Your task to perform on an android device: turn off improve location accuracy Image 0: 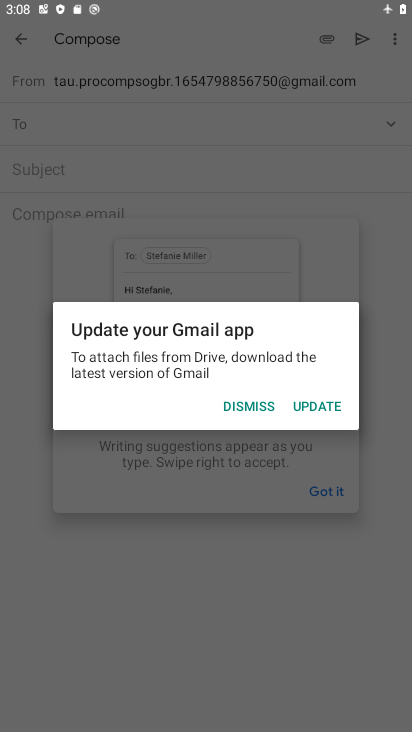
Step 0: press home button
Your task to perform on an android device: turn off improve location accuracy Image 1: 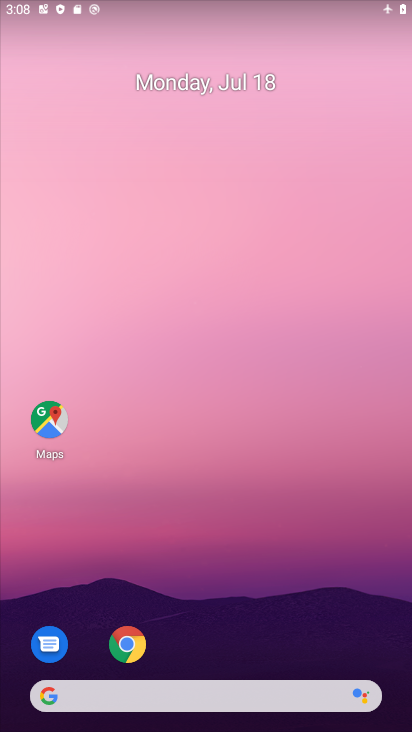
Step 1: drag from (393, 637) to (308, 278)
Your task to perform on an android device: turn off improve location accuracy Image 2: 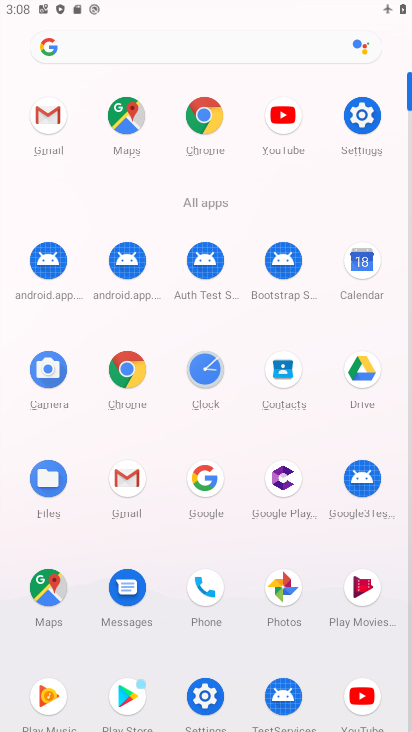
Step 2: click (204, 695)
Your task to perform on an android device: turn off improve location accuracy Image 3: 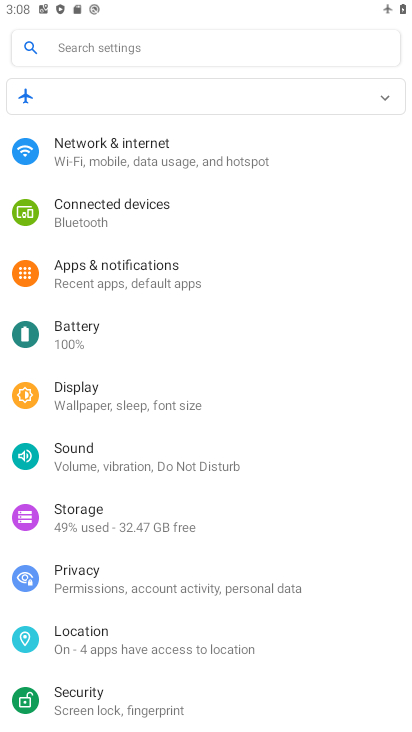
Step 3: click (57, 631)
Your task to perform on an android device: turn off improve location accuracy Image 4: 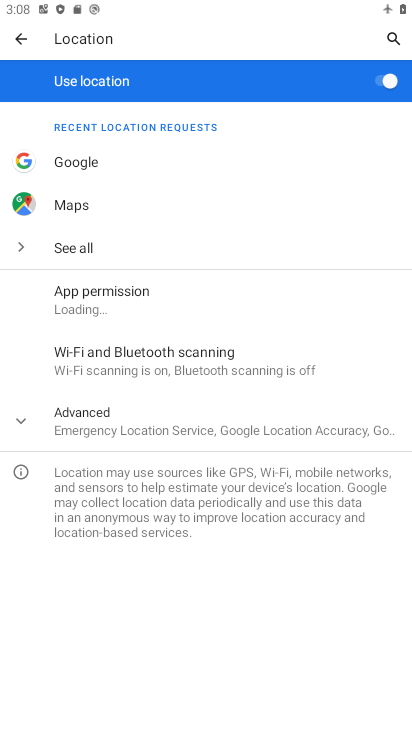
Step 4: click (21, 419)
Your task to perform on an android device: turn off improve location accuracy Image 5: 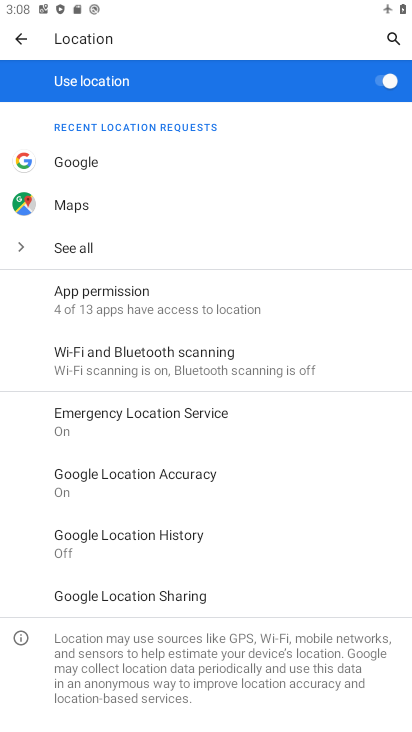
Step 5: click (107, 478)
Your task to perform on an android device: turn off improve location accuracy Image 6: 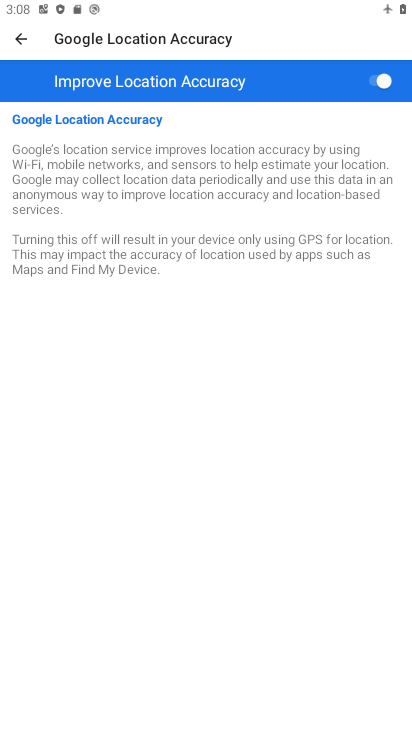
Step 6: click (372, 79)
Your task to perform on an android device: turn off improve location accuracy Image 7: 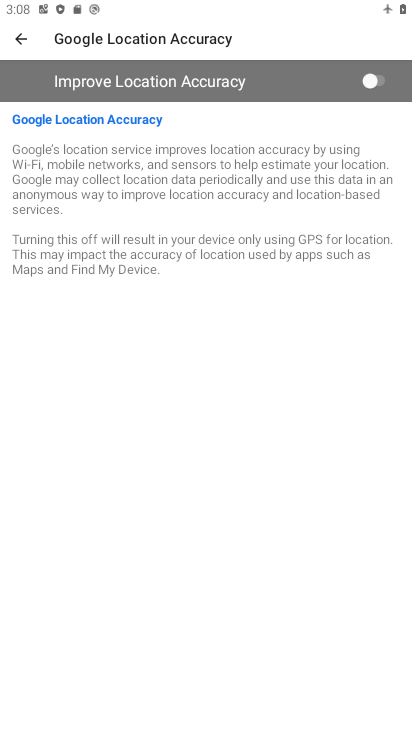
Step 7: task complete